Your task to perform on an android device: create a new album in the google photos Image 0: 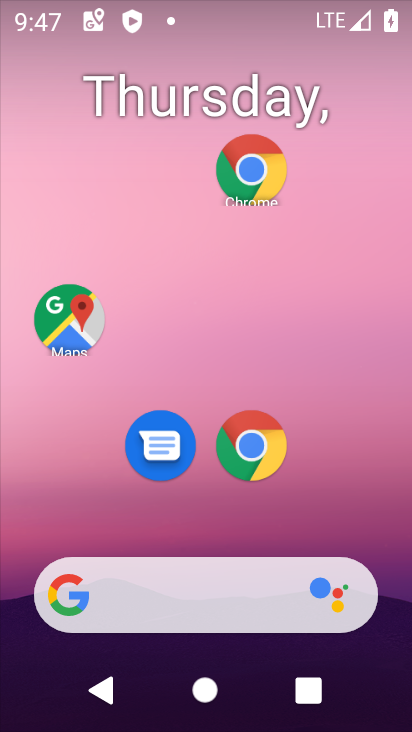
Step 0: drag from (197, 551) to (223, 3)
Your task to perform on an android device: create a new album in the google photos Image 1: 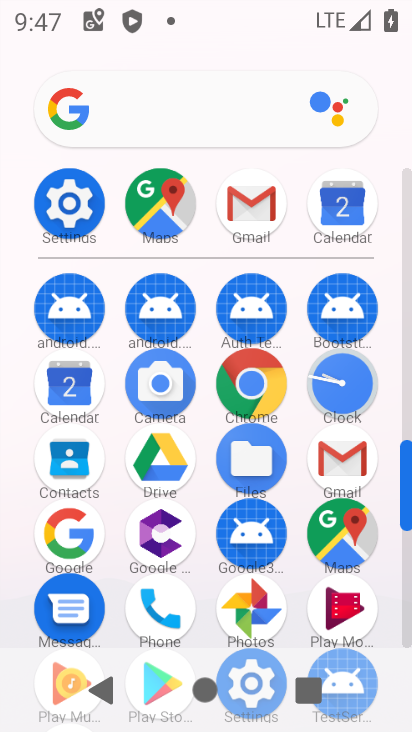
Step 1: click (256, 623)
Your task to perform on an android device: create a new album in the google photos Image 2: 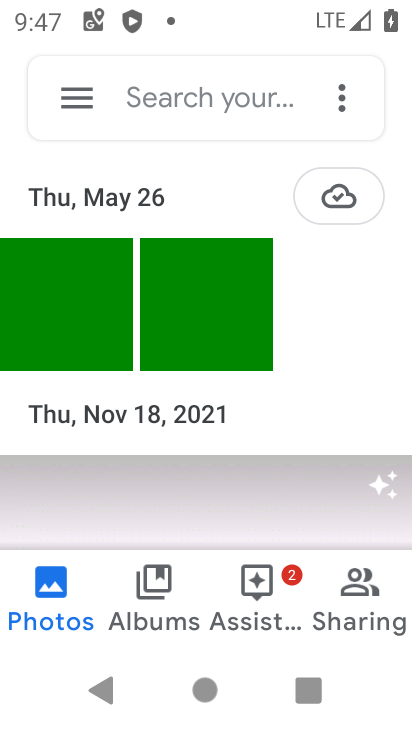
Step 2: click (95, 327)
Your task to perform on an android device: create a new album in the google photos Image 3: 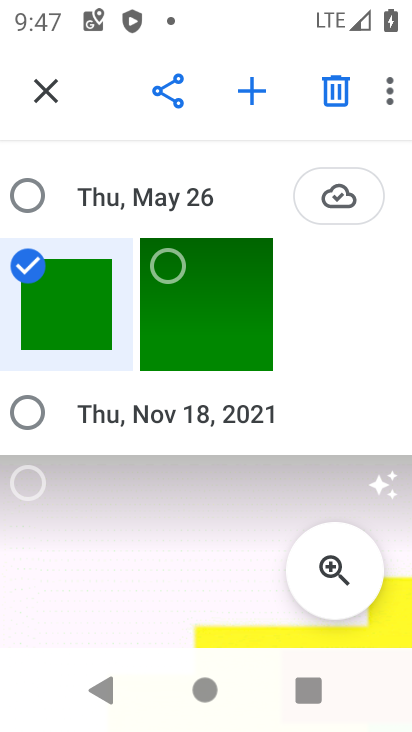
Step 3: click (171, 322)
Your task to perform on an android device: create a new album in the google photos Image 4: 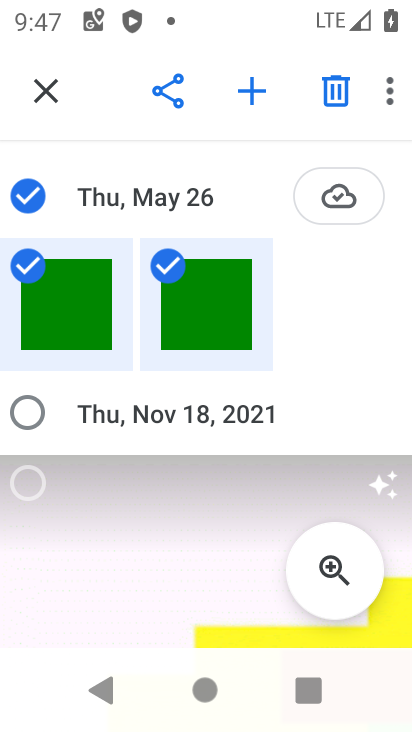
Step 4: click (258, 98)
Your task to perform on an android device: create a new album in the google photos Image 5: 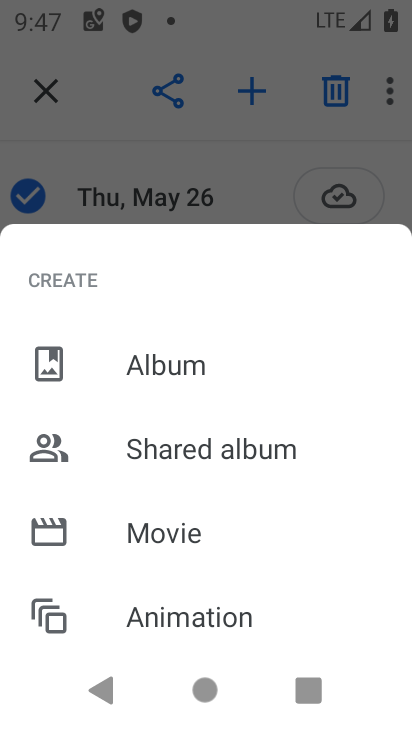
Step 5: click (199, 376)
Your task to perform on an android device: create a new album in the google photos Image 6: 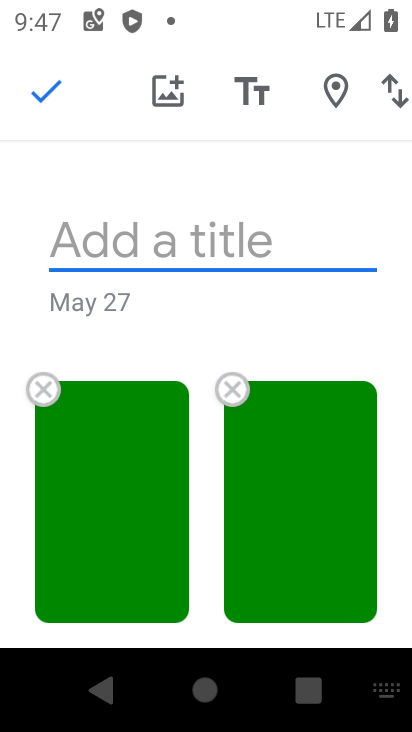
Step 6: type "hjjj"
Your task to perform on an android device: create a new album in the google photos Image 7: 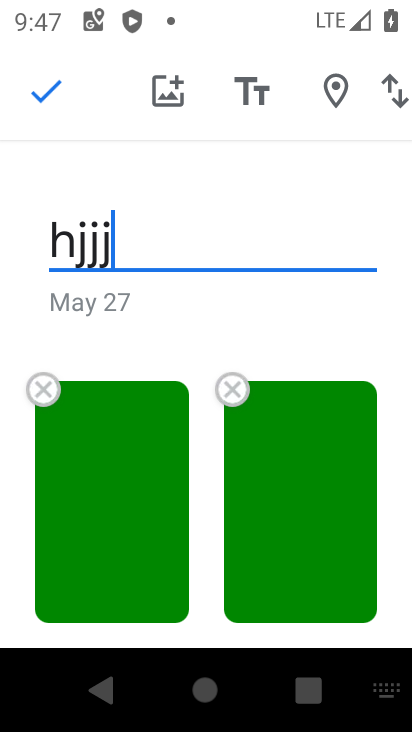
Step 7: type ""
Your task to perform on an android device: create a new album in the google photos Image 8: 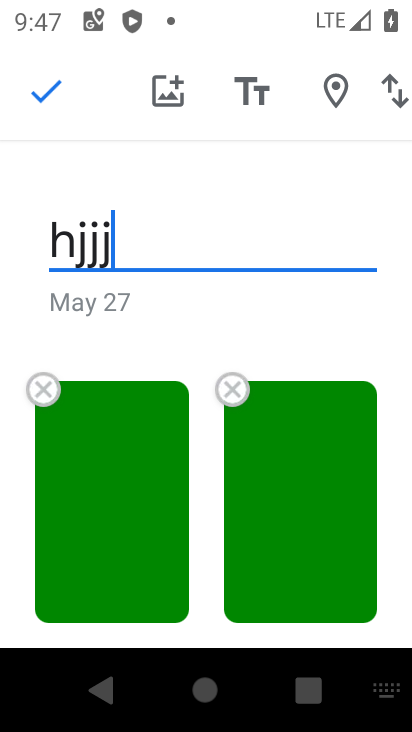
Step 8: click (31, 100)
Your task to perform on an android device: create a new album in the google photos Image 9: 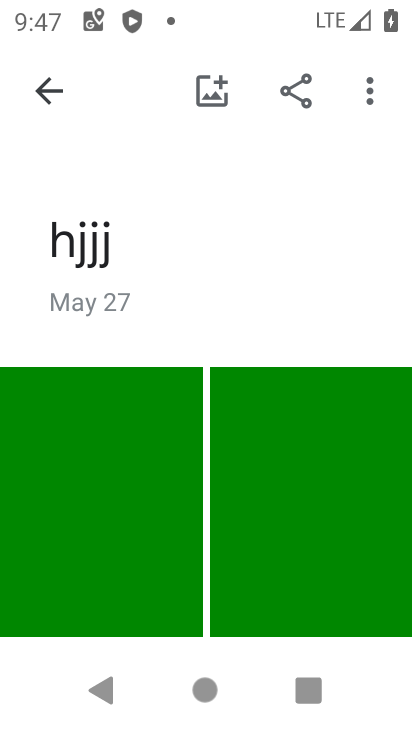
Step 9: task complete